Your task to perform on an android device: change your default location settings in chrome Image 0: 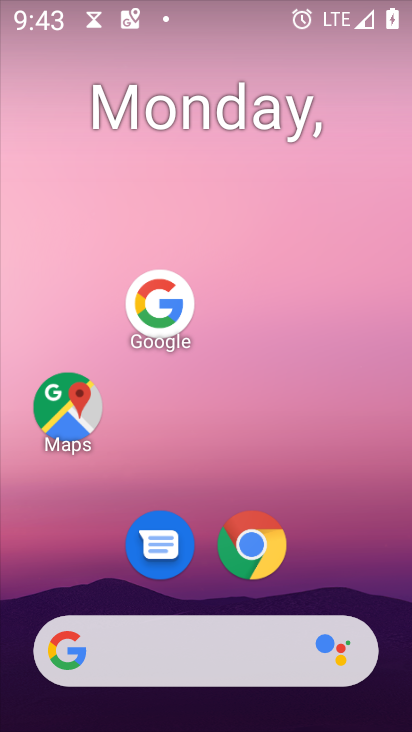
Step 0: press home button
Your task to perform on an android device: change your default location settings in chrome Image 1: 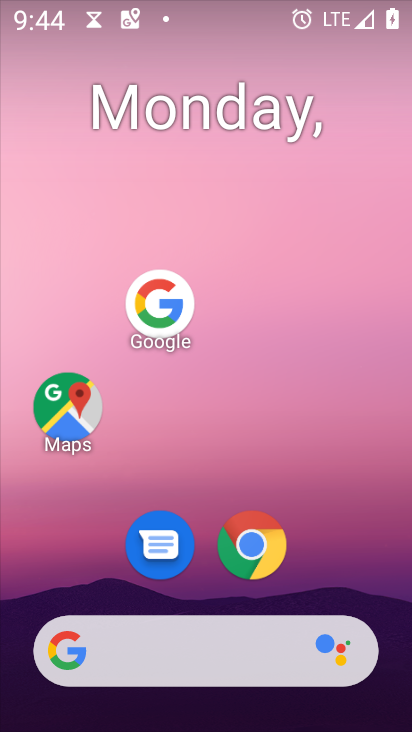
Step 1: click (260, 560)
Your task to perform on an android device: change your default location settings in chrome Image 2: 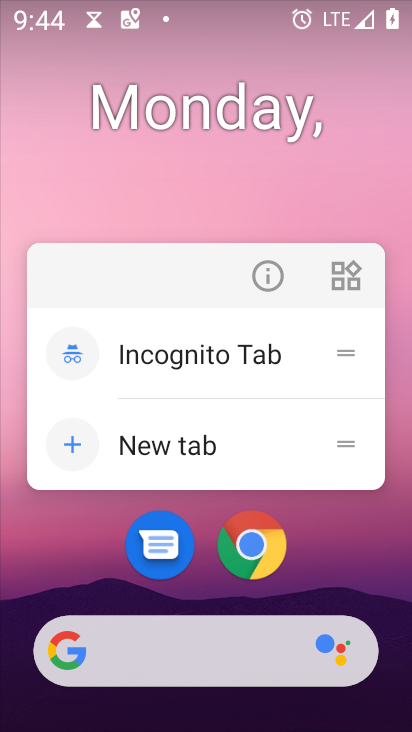
Step 2: click (260, 559)
Your task to perform on an android device: change your default location settings in chrome Image 3: 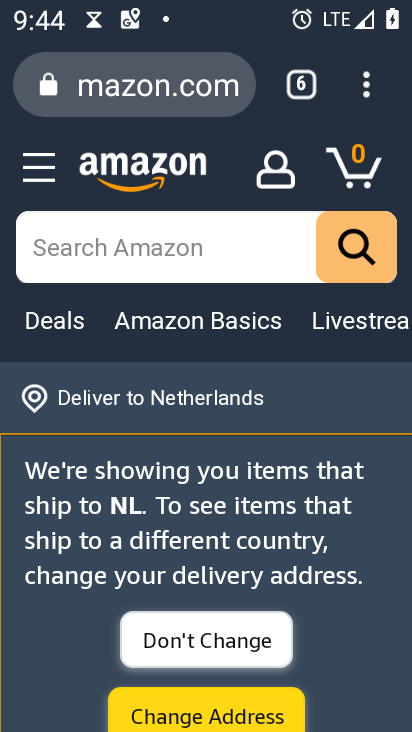
Step 3: drag from (365, 97) to (230, 584)
Your task to perform on an android device: change your default location settings in chrome Image 4: 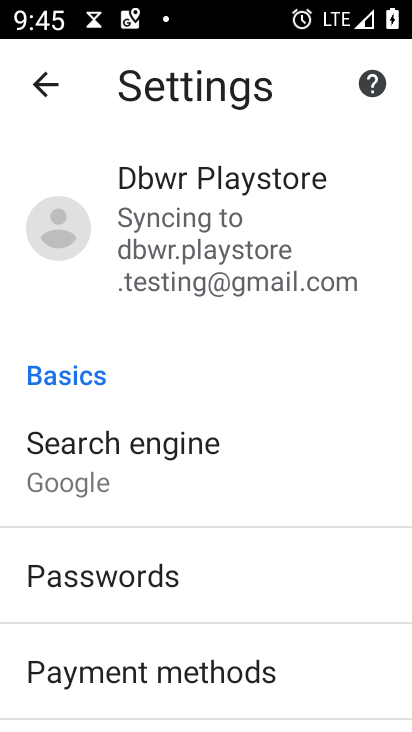
Step 4: drag from (217, 599) to (330, 90)
Your task to perform on an android device: change your default location settings in chrome Image 5: 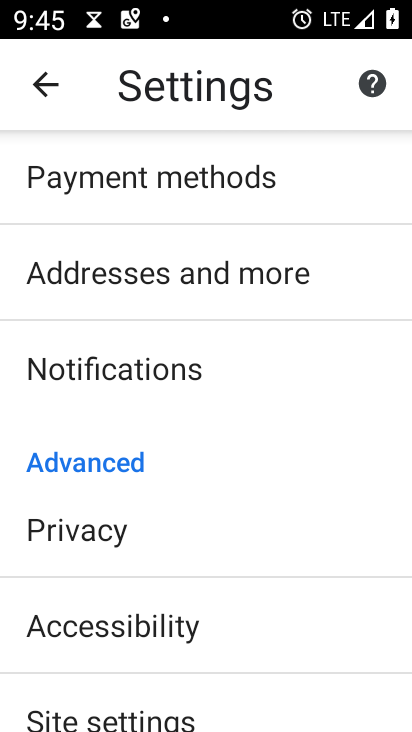
Step 5: drag from (219, 697) to (278, 390)
Your task to perform on an android device: change your default location settings in chrome Image 6: 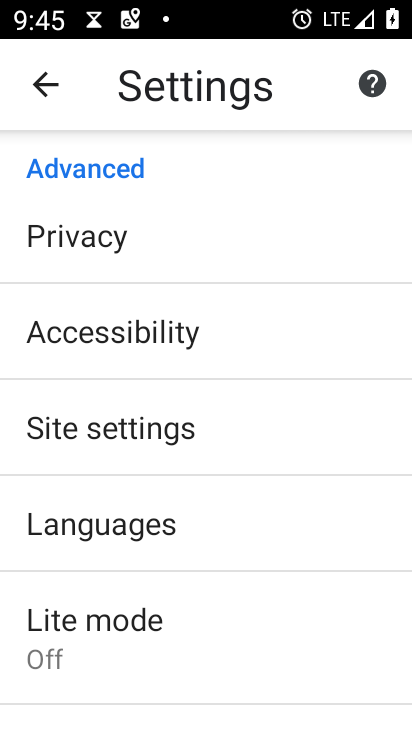
Step 6: click (123, 447)
Your task to perform on an android device: change your default location settings in chrome Image 7: 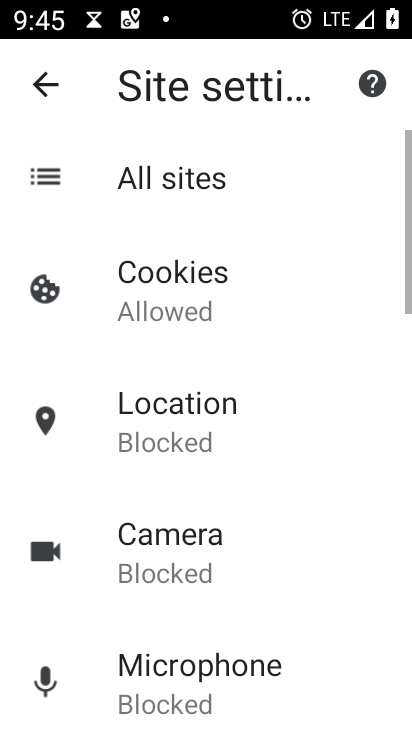
Step 7: click (154, 430)
Your task to perform on an android device: change your default location settings in chrome Image 8: 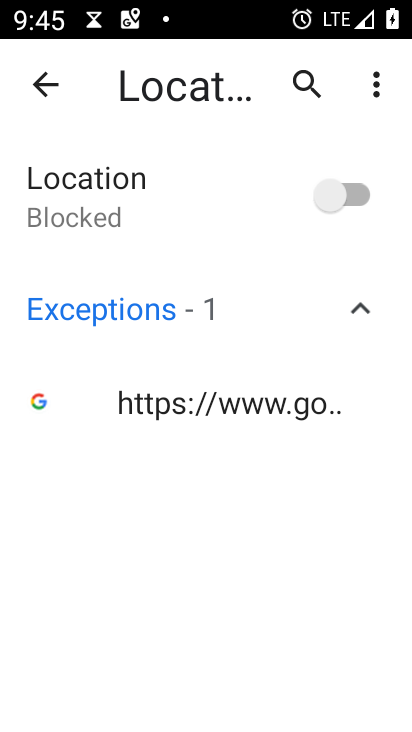
Step 8: click (355, 185)
Your task to perform on an android device: change your default location settings in chrome Image 9: 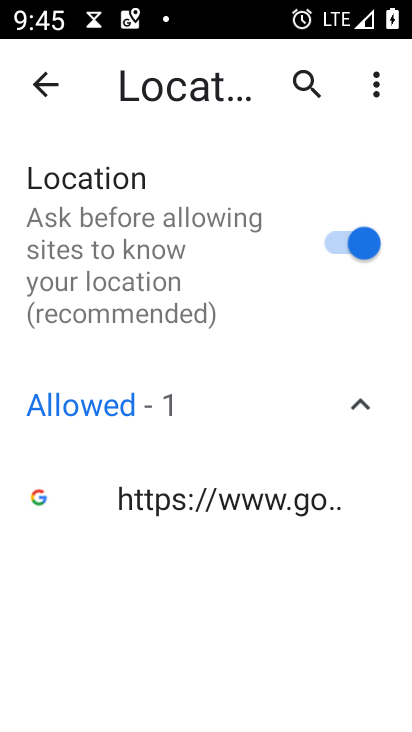
Step 9: task complete